Your task to perform on an android device: change notifications settings Image 0: 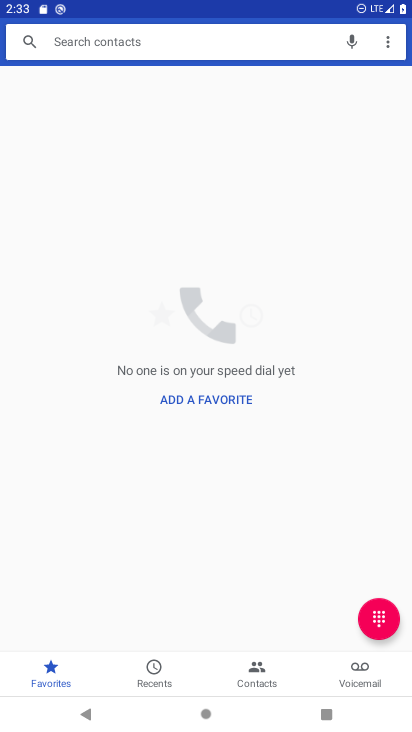
Step 0: press home button
Your task to perform on an android device: change notifications settings Image 1: 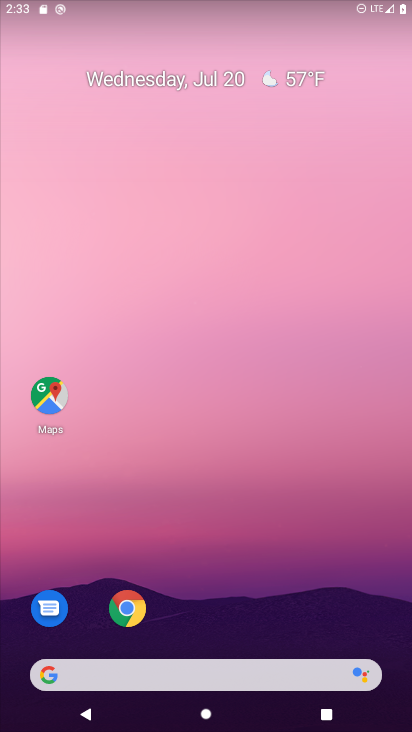
Step 1: drag from (239, 696) to (237, 286)
Your task to perform on an android device: change notifications settings Image 2: 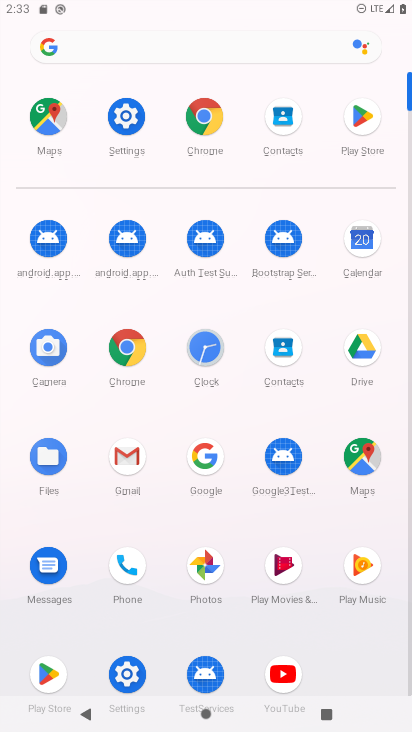
Step 2: click (118, 120)
Your task to perform on an android device: change notifications settings Image 3: 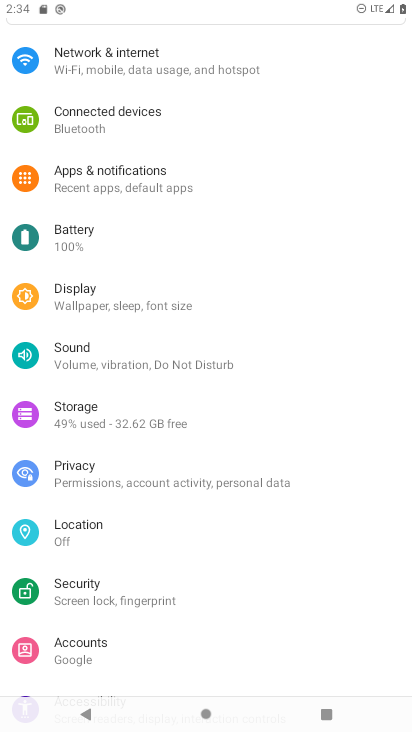
Step 3: click (113, 177)
Your task to perform on an android device: change notifications settings Image 4: 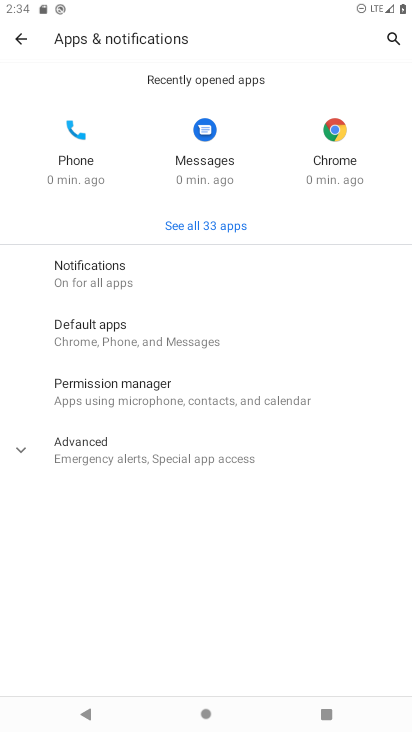
Step 4: click (83, 278)
Your task to perform on an android device: change notifications settings Image 5: 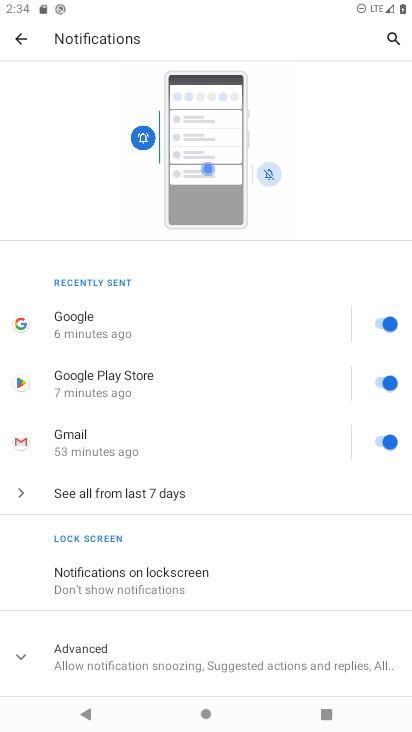
Step 5: click (144, 656)
Your task to perform on an android device: change notifications settings Image 6: 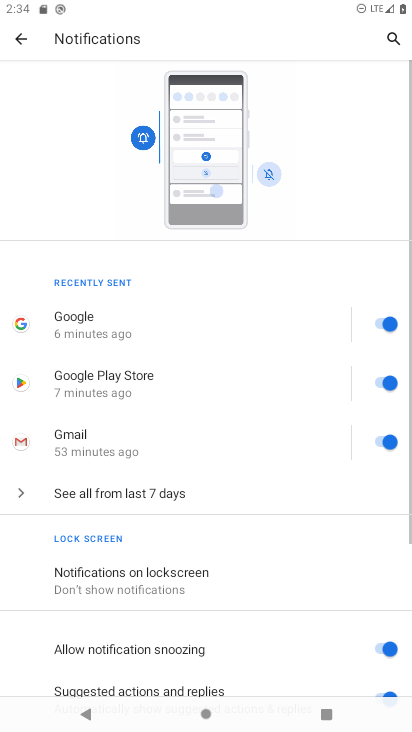
Step 6: drag from (306, 649) to (280, 454)
Your task to perform on an android device: change notifications settings Image 7: 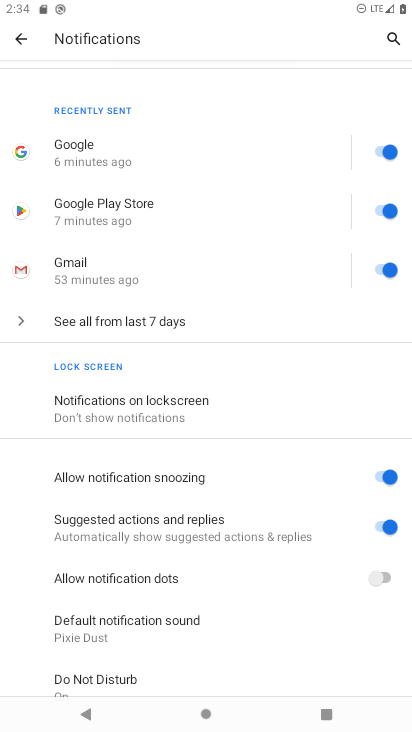
Step 7: drag from (183, 620) to (159, 440)
Your task to perform on an android device: change notifications settings Image 8: 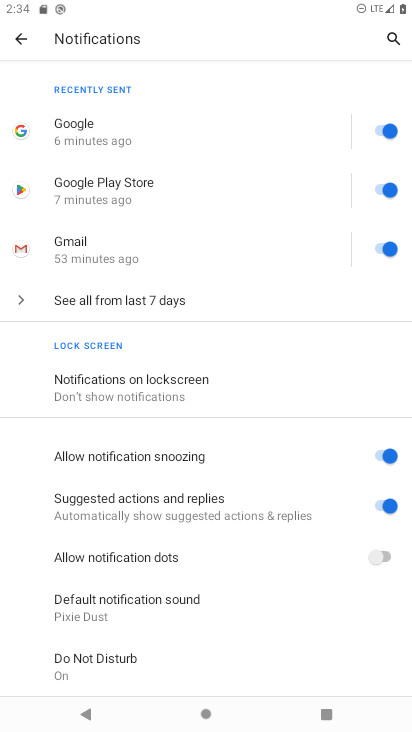
Step 8: drag from (241, 253) to (286, 519)
Your task to perform on an android device: change notifications settings Image 9: 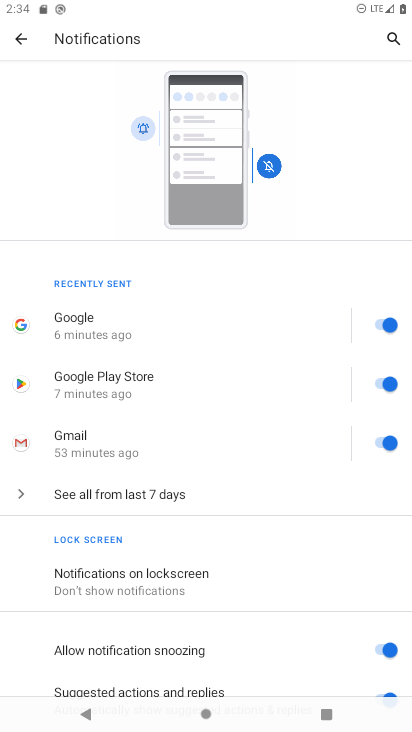
Step 9: click (386, 650)
Your task to perform on an android device: change notifications settings Image 10: 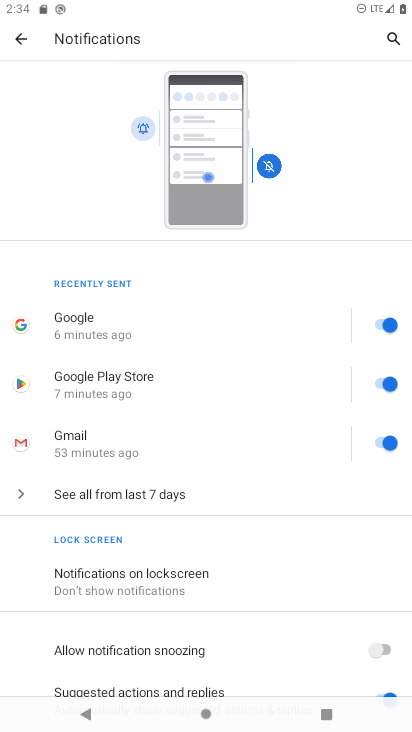
Step 10: task complete